Your task to perform on an android device: open wifi settings Image 0: 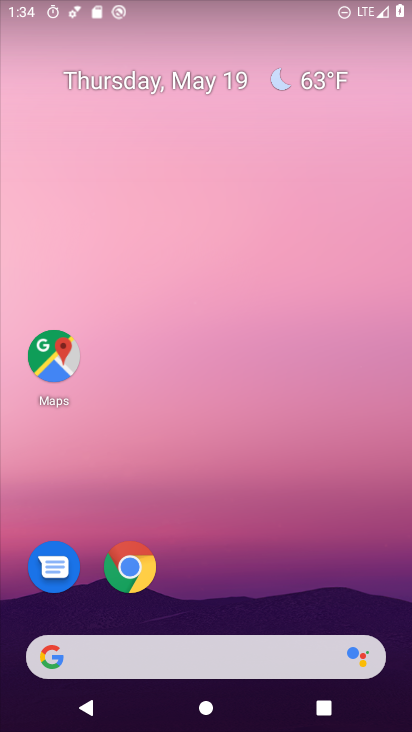
Step 0: drag from (163, 629) to (304, 78)
Your task to perform on an android device: open wifi settings Image 1: 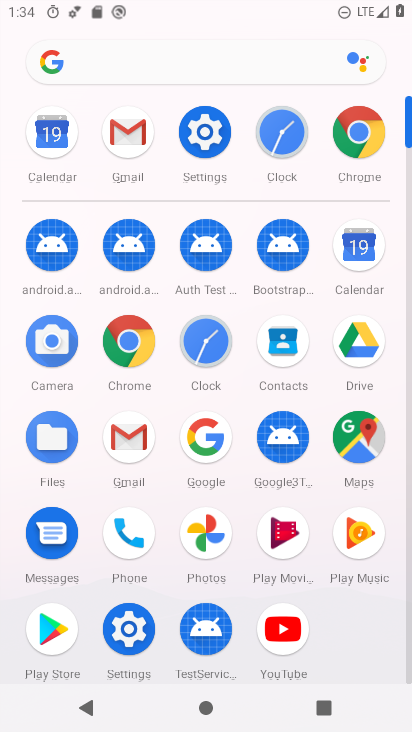
Step 1: click (197, 134)
Your task to perform on an android device: open wifi settings Image 2: 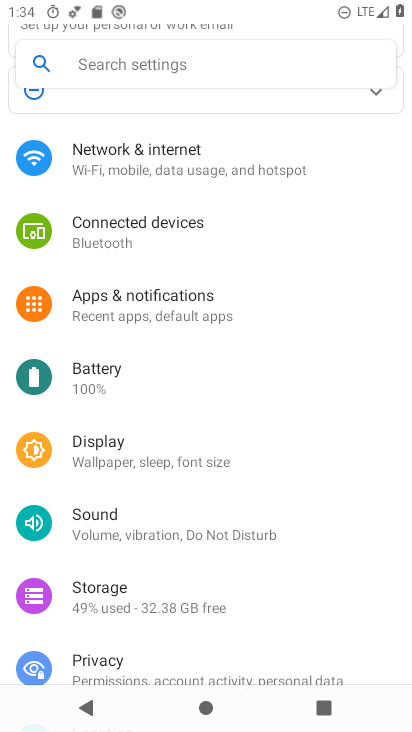
Step 2: click (180, 158)
Your task to perform on an android device: open wifi settings Image 3: 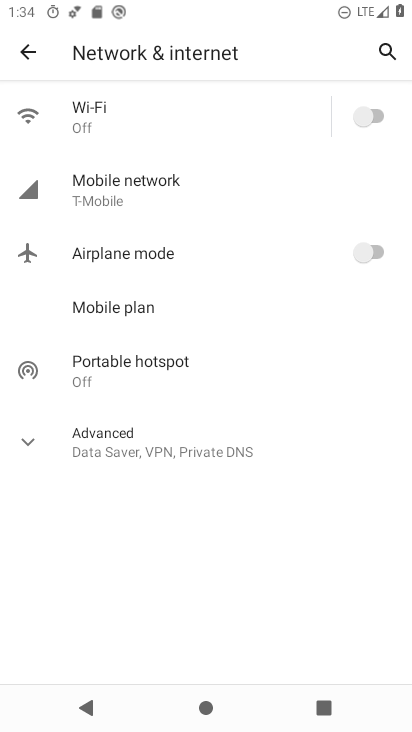
Step 3: click (104, 125)
Your task to perform on an android device: open wifi settings Image 4: 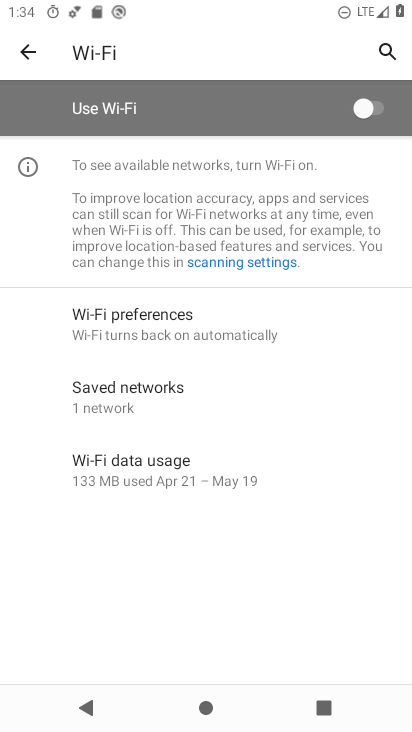
Step 4: task complete